Your task to perform on an android device: toggle improve location accuracy Image 0: 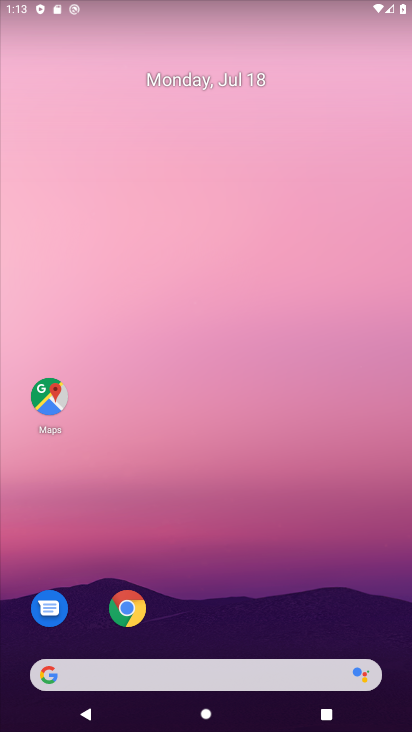
Step 0: drag from (230, 712) to (223, 45)
Your task to perform on an android device: toggle improve location accuracy Image 1: 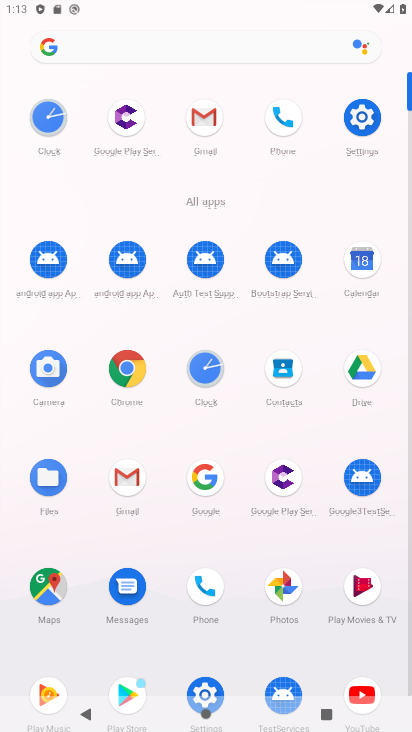
Step 1: click (365, 125)
Your task to perform on an android device: toggle improve location accuracy Image 2: 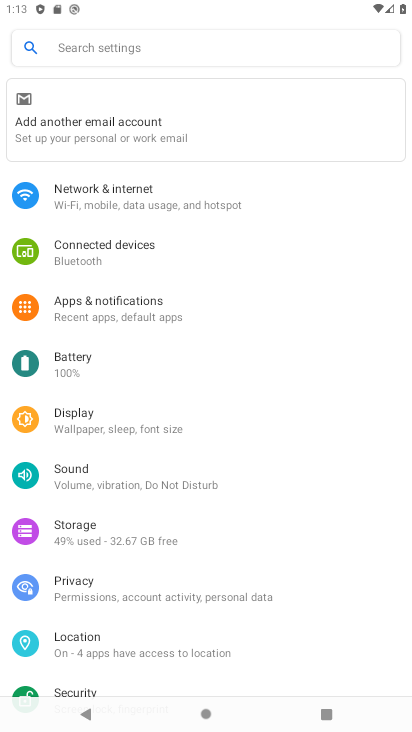
Step 2: click (71, 649)
Your task to perform on an android device: toggle improve location accuracy Image 3: 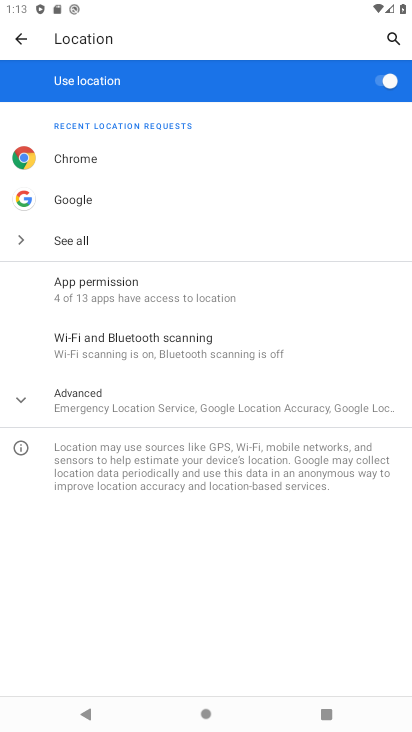
Step 3: click (140, 405)
Your task to perform on an android device: toggle improve location accuracy Image 4: 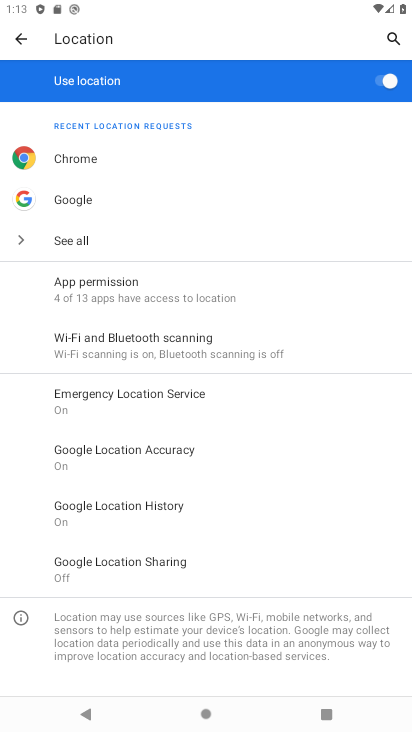
Step 4: click (154, 447)
Your task to perform on an android device: toggle improve location accuracy Image 5: 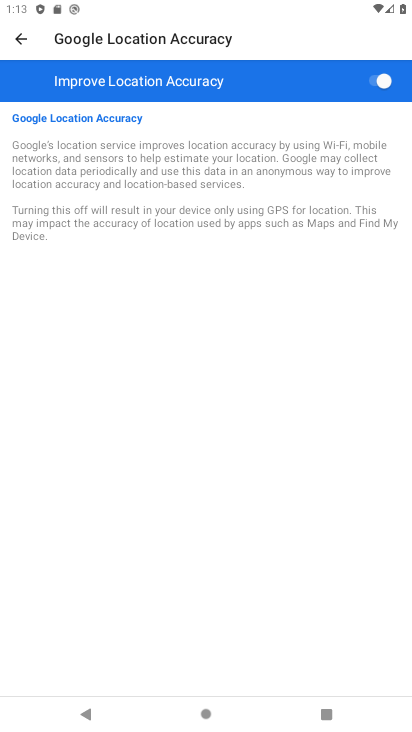
Step 5: click (373, 75)
Your task to perform on an android device: toggle improve location accuracy Image 6: 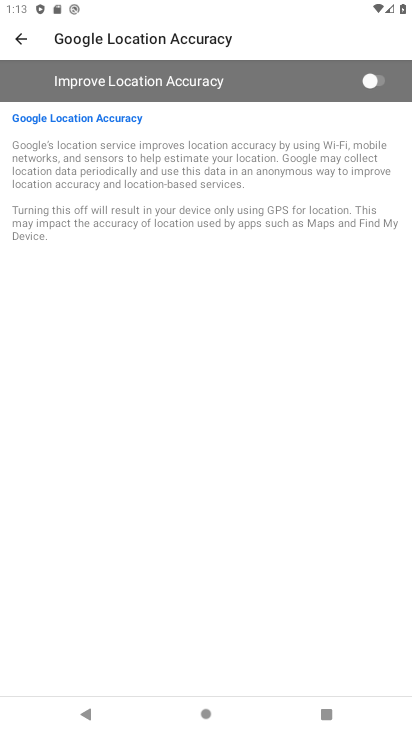
Step 6: task complete